Your task to perform on an android device: open a new tab in the chrome app Image 0: 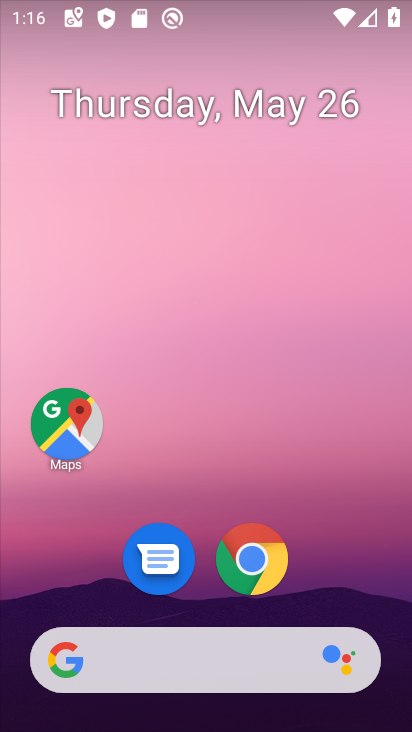
Step 0: press home button
Your task to perform on an android device: open a new tab in the chrome app Image 1: 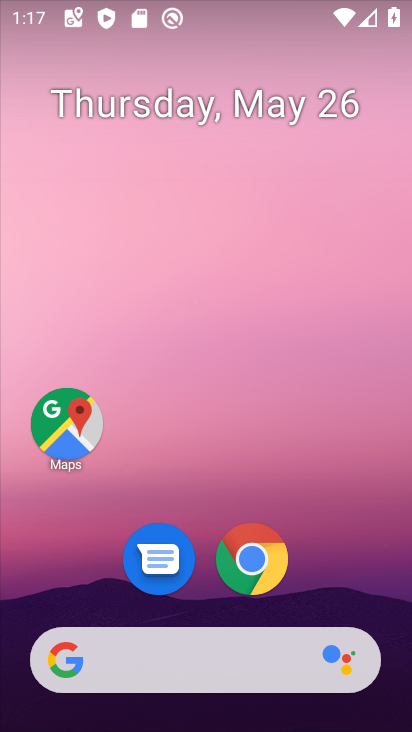
Step 1: click (251, 571)
Your task to perform on an android device: open a new tab in the chrome app Image 2: 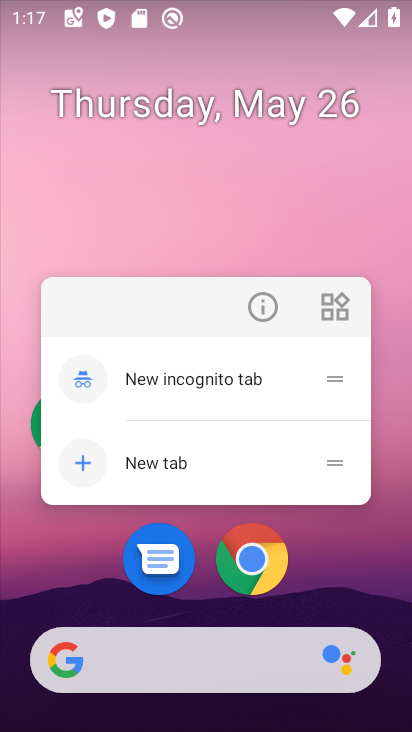
Step 2: click (245, 573)
Your task to perform on an android device: open a new tab in the chrome app Image 3: 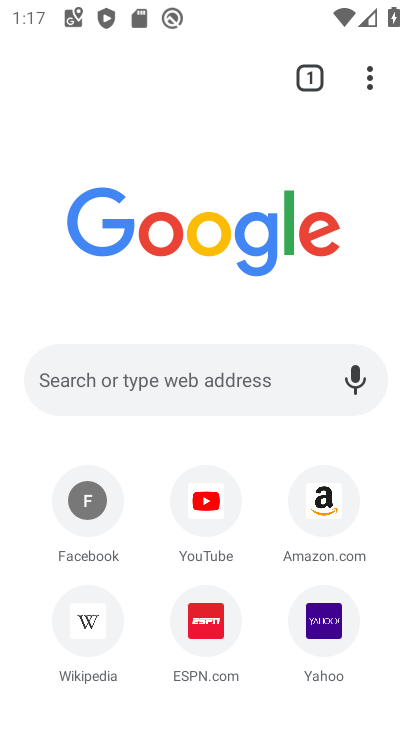
Step 3: task complete